Your task to perform on an android device: Open Google Image 0: 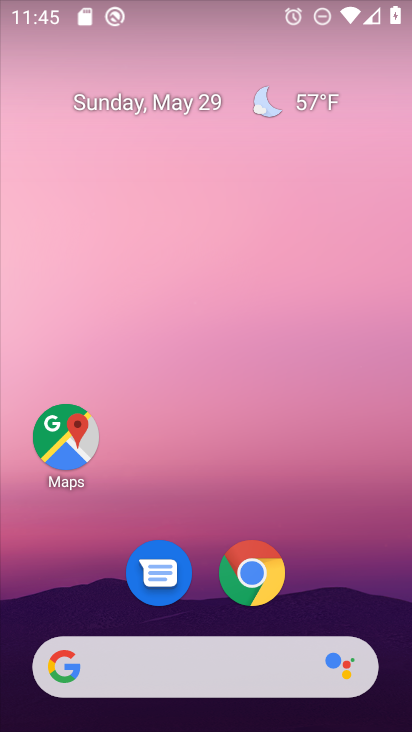
Step 0: drag from (269, 666) to (287, 11)
Your task to perform on an android device: Open Google Image 1: 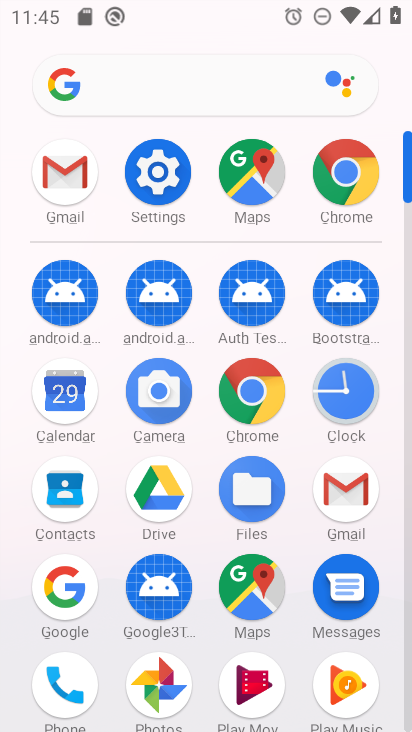
Step 1: click (77, 595)
Your task to perform on an android device: Open Google Image 2: 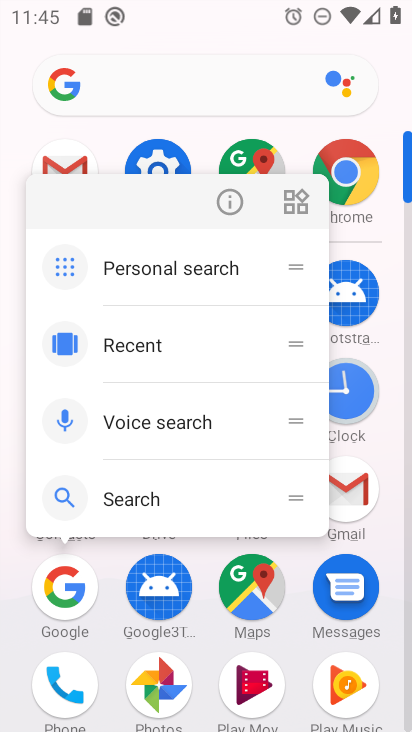
Step 2: click (74, 599)
Your task to perform on an android device: Open Google Image 3: 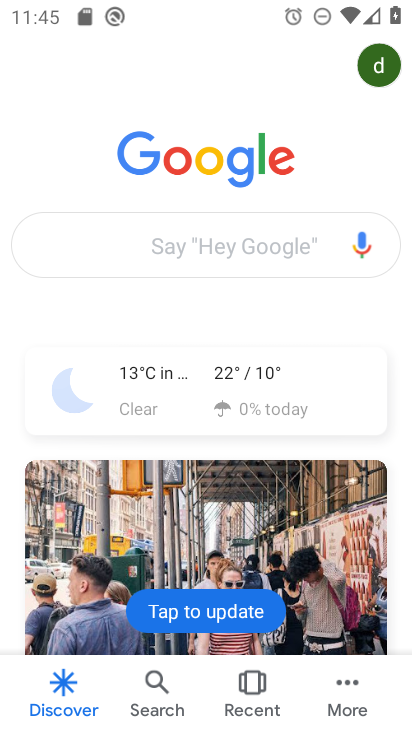
Step 3: task complete